Your task to perform on an android device: snooze an email in the gmail app Image 0: 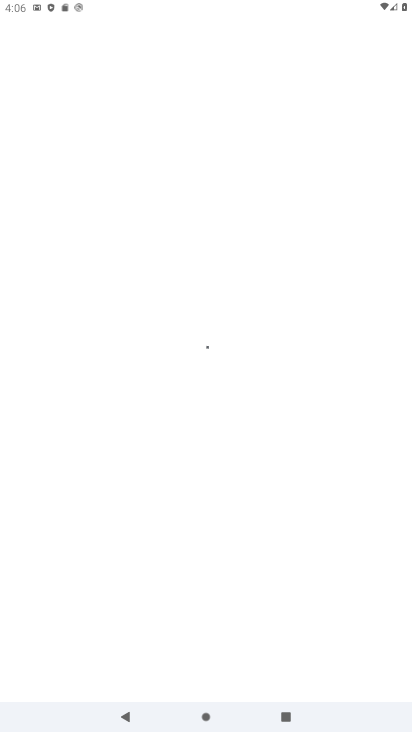
Step 0: drag from (217, 679) to (178, 222)
Your task to perform on an android device: snooze an email in the gmail app Image 1: 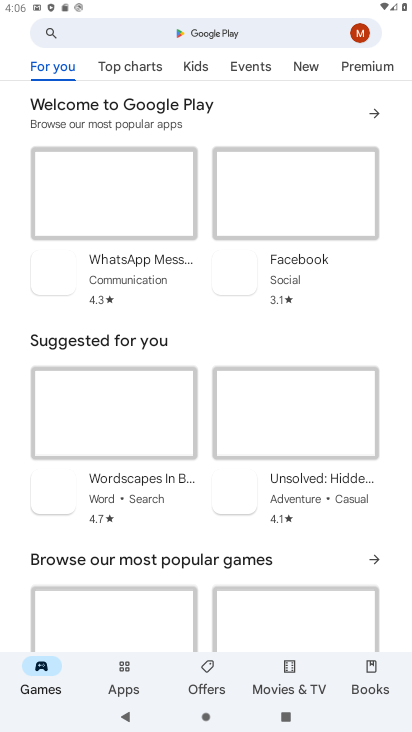
Step 1: press back button
Your task to perform on an android device: snooze an email in the gmail app Image 2: 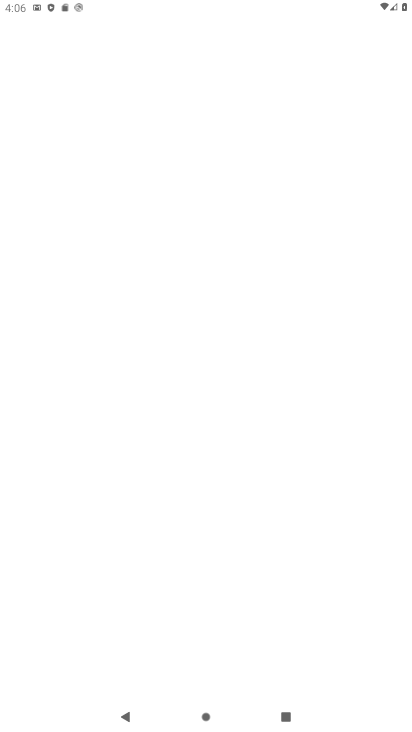
Step 2: press back button
Your task to perform on an android device: snooze an email in the gmail app Image 3: 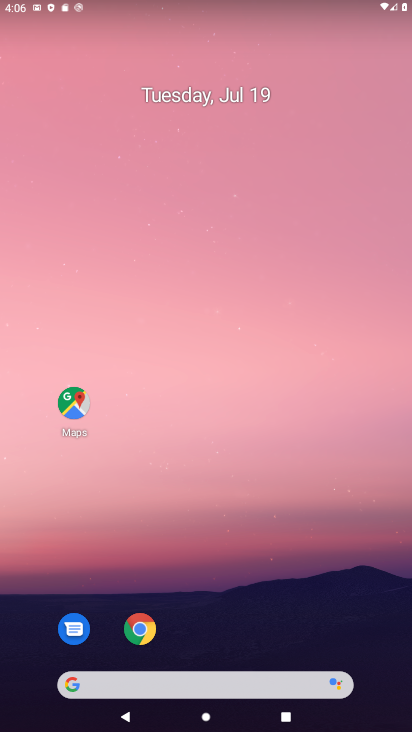
Step 3: press home button
Your task to perform on an android device: snooze an email in the gmail app Image 4: 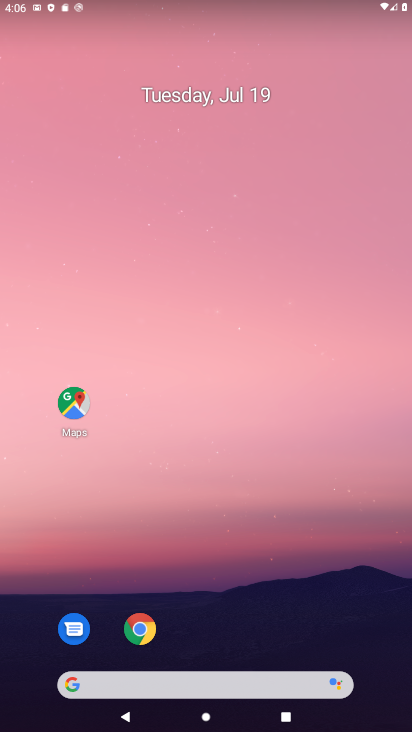
Step 4: drag from (229, 683) to (116, 103)
Your task to perform on an android device: snooze an email in the gmail app Image 5: 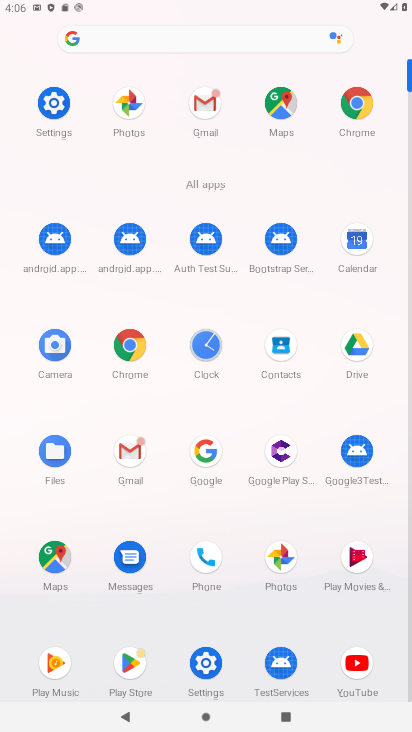
Step 5: click (127, 449)
Your task to perform on an android device: snooze an email in the gmail app Image 6: 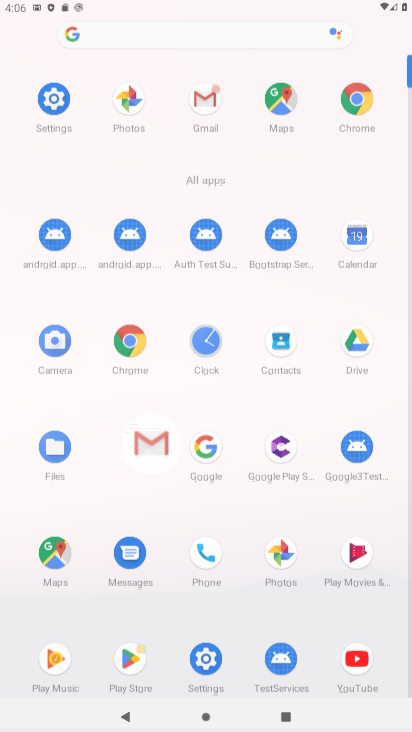
Step 6: click (128, 448)
Your task to perform on an android device: snooze an email in the gmail app Image 7: 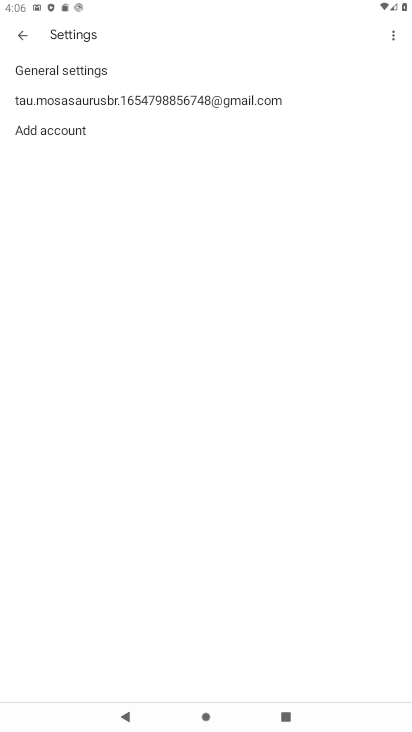
Step 7: click (19, 34)
Your task to perform on an android device: snooze an email in the gmail app Image 8: 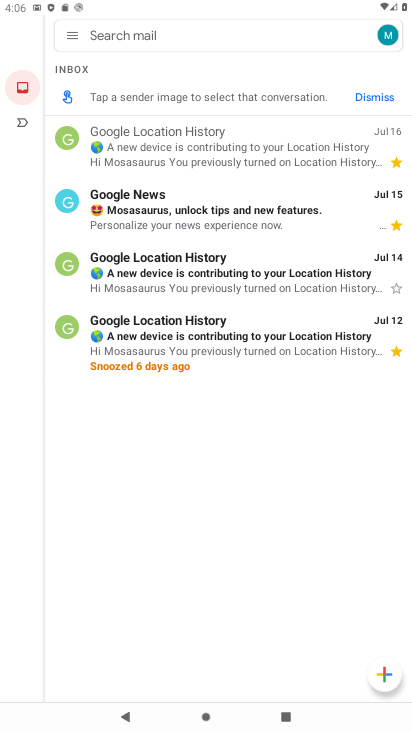
Step 8: click (212, 148)
Your task to perform on an android device: snooze an email in the gmail app Image 9: 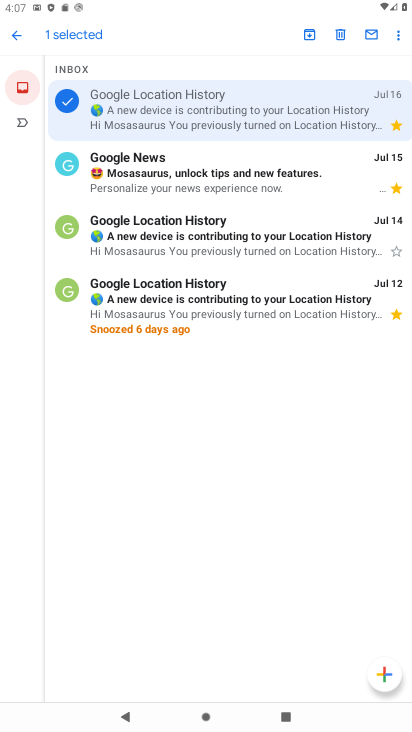
Step 9: click (393, 37)
Your task to perform on an android device: snooze an email in the gmail app Image 10: 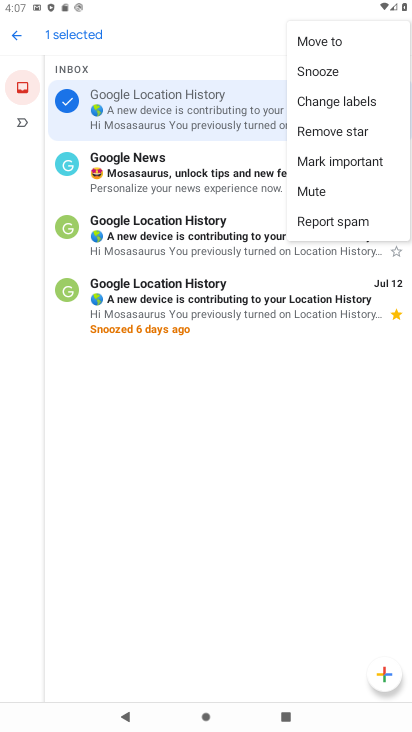
Step 10: click (324, 66)
Your task to perform on an android device: snooze an email in the gmail app Image 11: 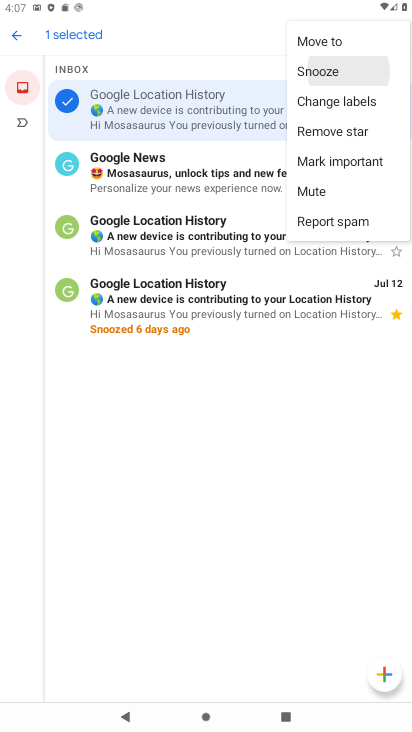
Step 11: click (325, 67)
Your task to perform on an android device: snooze an email in the gmail app Image 12: 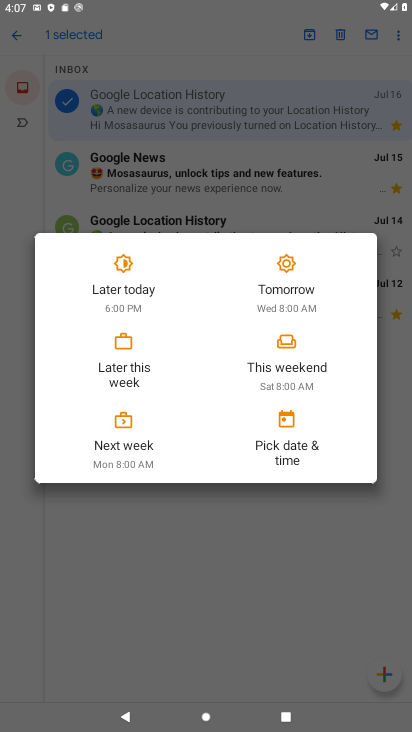
Step 12: click (282, 281)
Your task to perform on an android device: snooze an email in the gmail app Image 13: 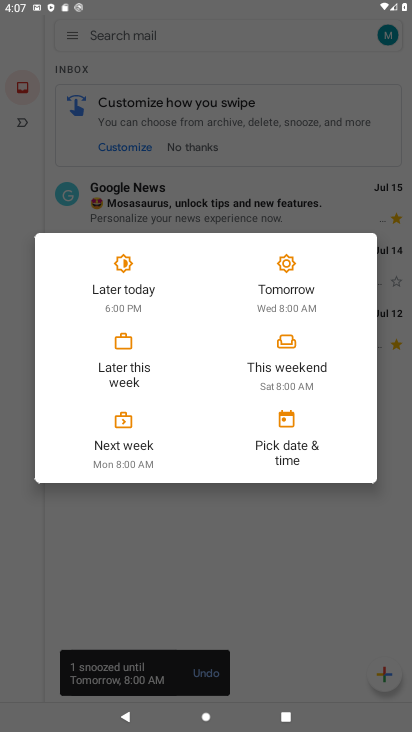
Step 13: task complete